Your task to perform on an android device: check the backup settings in the google photos Image 0: 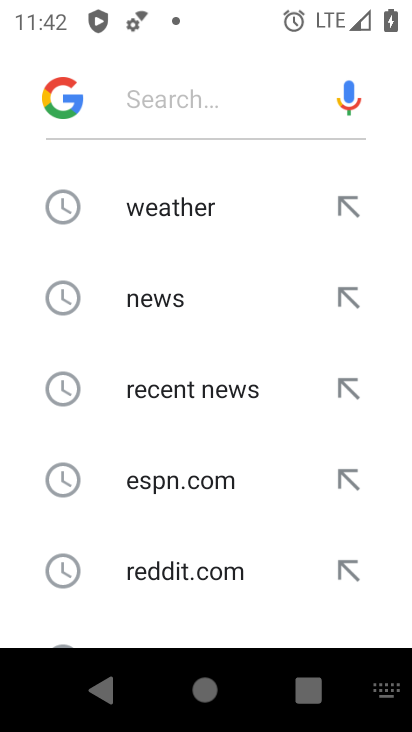
Step 0: press home button
Your task to perform on an android device: check the backup settings in the google photos Image 1: 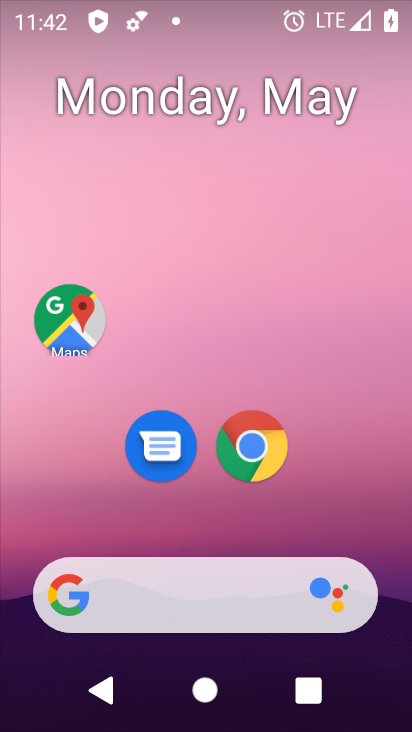
Step 1: drag from (329, 493) to (233, 2)
Your task to perform on an android device: check the backup settings in the google photos Image 2: 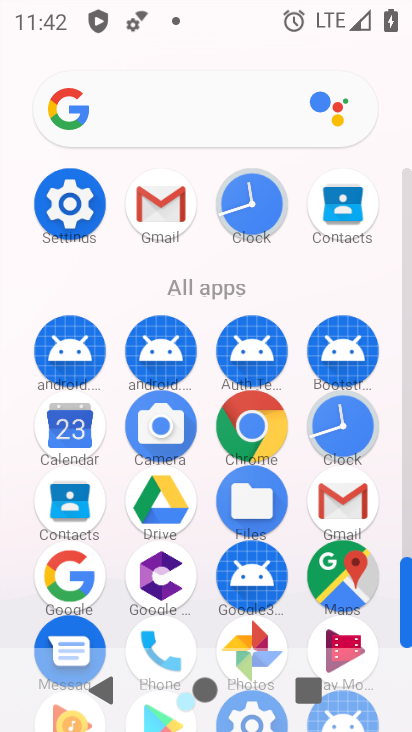
Step 2: click (257, 629)
Your task to perform on an android device: check the backup settings in the google photos Image 3: 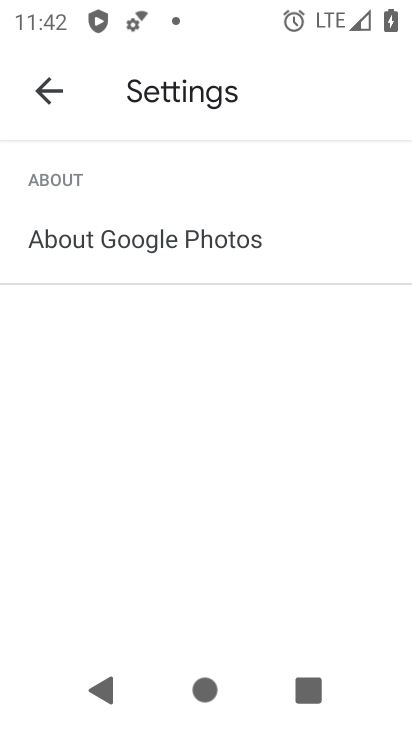
Step 3: click (40, 87)
Your task to perform on an android device: check the backup settings in the google photos Image 4: 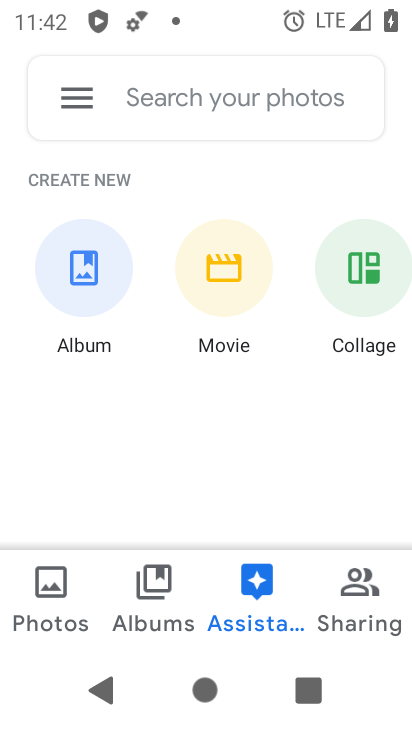
Step 4: click (72, 86)
Your task to perform on an android device: check the backup settings in the google photos Image 5: 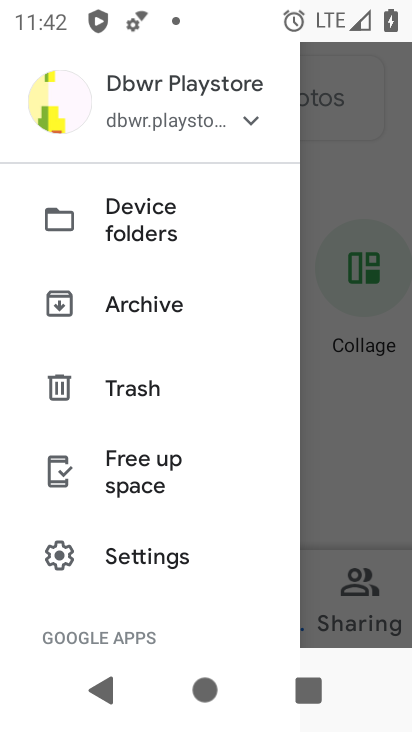
Step 5: click (136, 553)
Your task to perform on an android device: check the backup settings in the google photos Image 6: 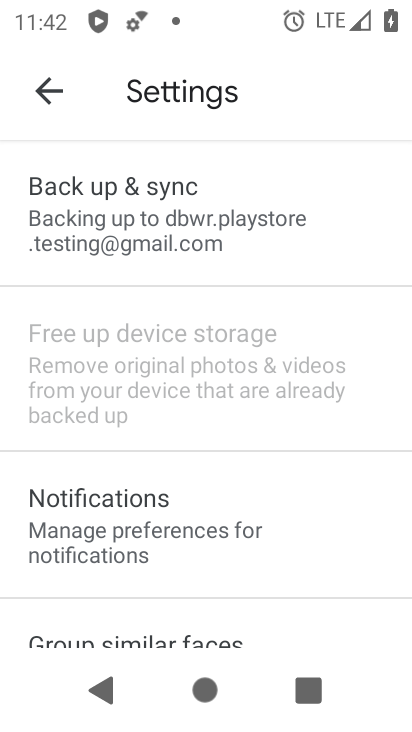
Step 6: click (113, 178)
Your task to perform on an android device: check the backup settings in the google photos Image 7: 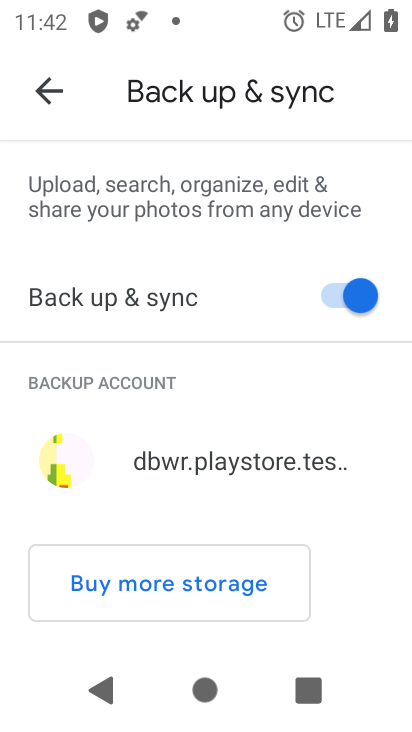
Step 7: task complete